Your task to perform on an android device: Open Google Image 0: 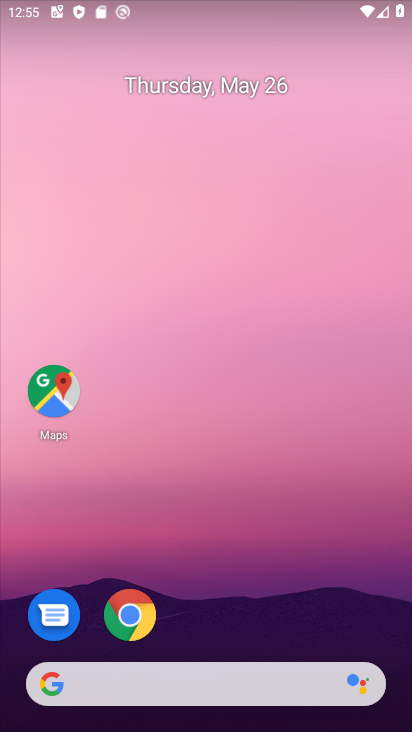
Step 0: drag from (250, 626) to (237, 178)
Your task to perform on an android device: Open Google Image 1: 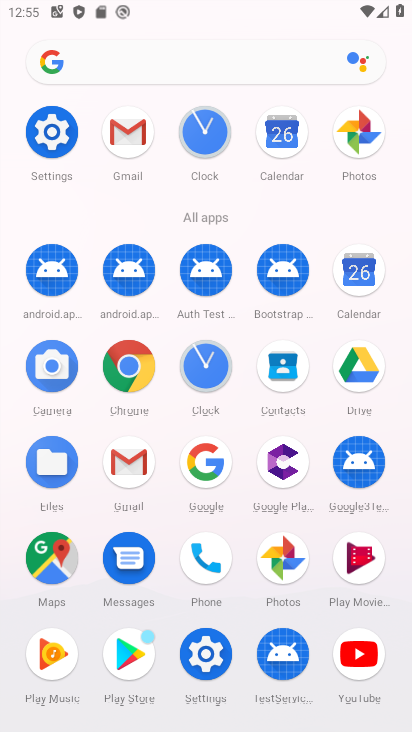
Step 1: click (211, 455)
Your task to perform on an android device: Open Google Image 2: 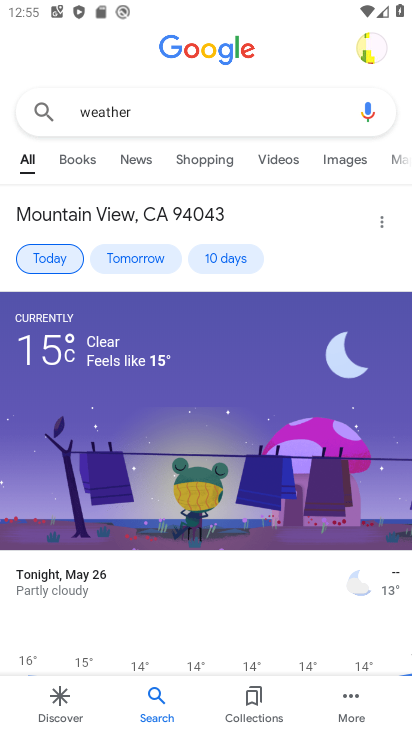
Step 2: task complete